Your task to perform on an android device: change the clock display to show seconds Image 0: 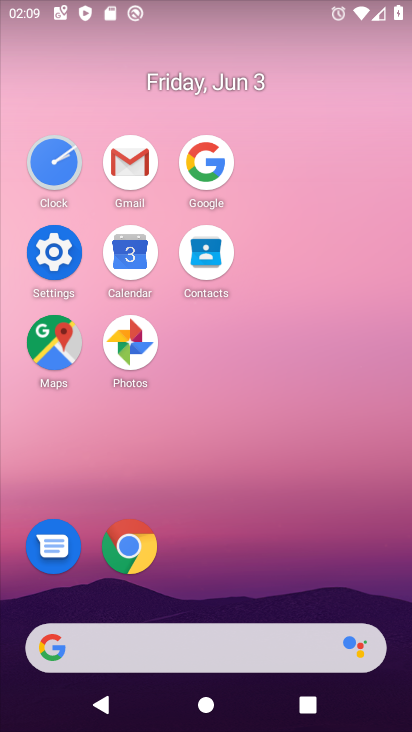
Step 0: click (56, 143)
Your task to perform on an android device: change the clock display to show seconds Image 1: 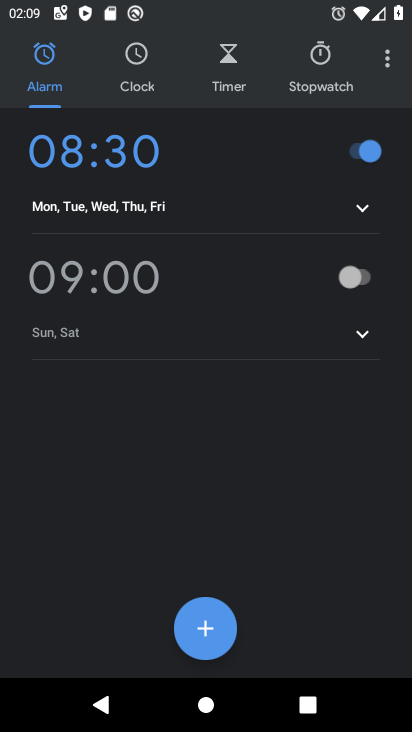
Step 1: click (382, 64)
Your task to perform on an android device: change the clock display to show seconds Image 2: 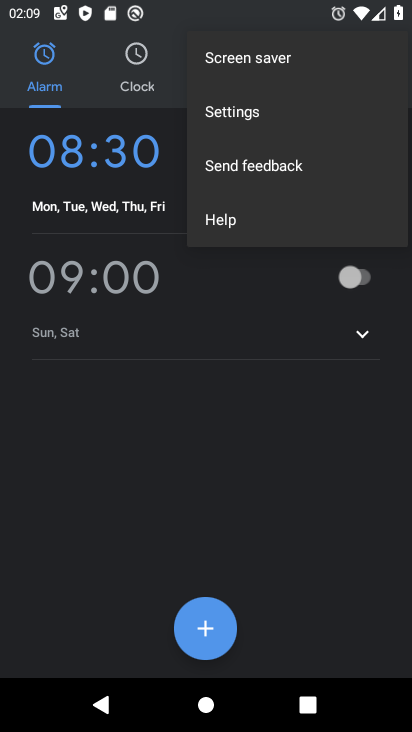
Step 2: click (282, 118)
Your task to perform on an android device: change the clock display to show seconds Image 3: 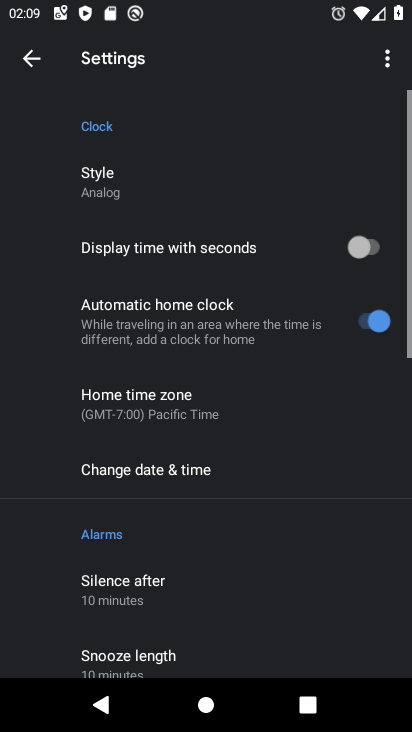
Step 3: click (344, 230)
Your task to perform on an android device: change the clock display to show seconds Image 4: 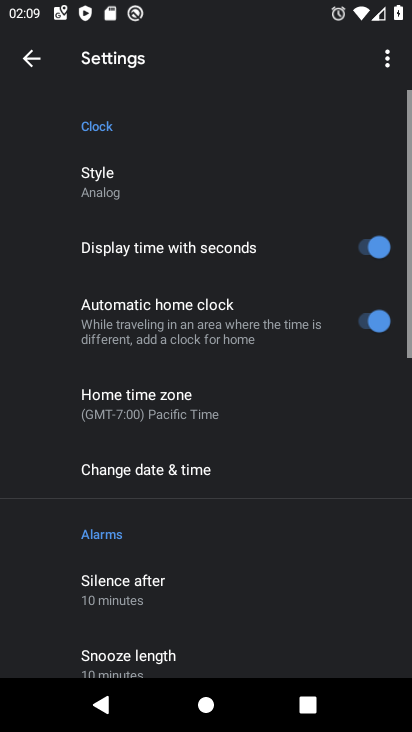
Step 4: task complete